Your task to perform on an android device: open chrome privacy settings Image 0: 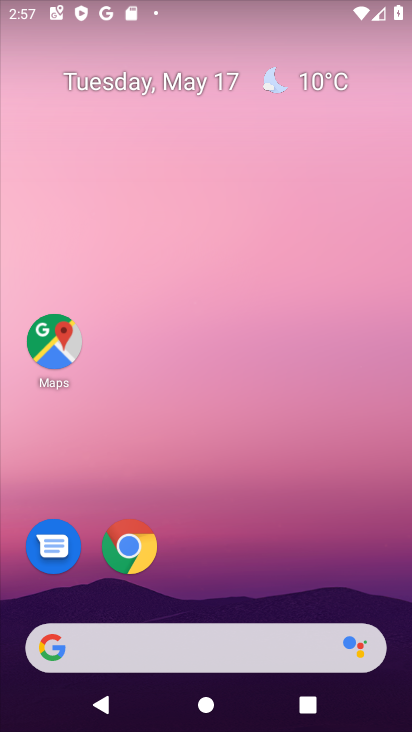
Step 0: click (142, 537)
Your task to perform on an android device: open chrome privacy settings Image 1: 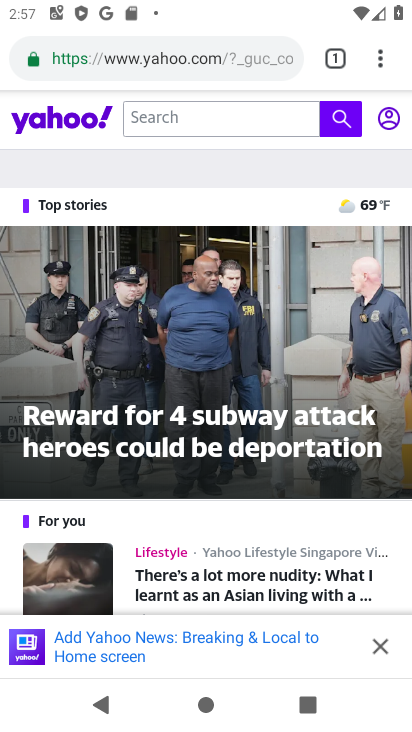
Step 1: click (386, 57)
Your task to perform on an android device: open chrome privacy settings Image 2: 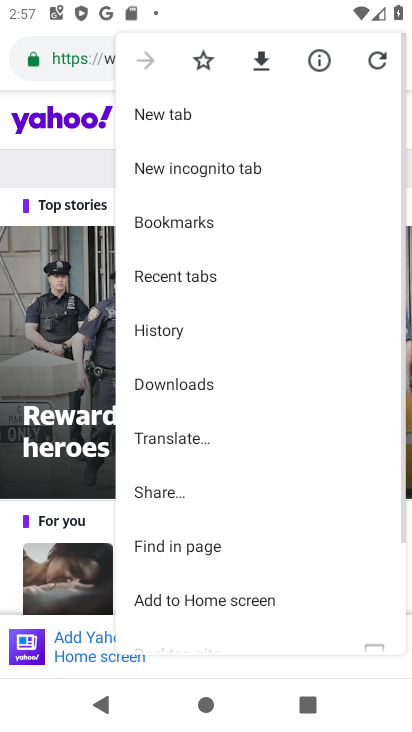
Step 2: drag from (220, 558) to (264, 164)
Your task to perform on an android device: open chrome privacy settings Image 3: 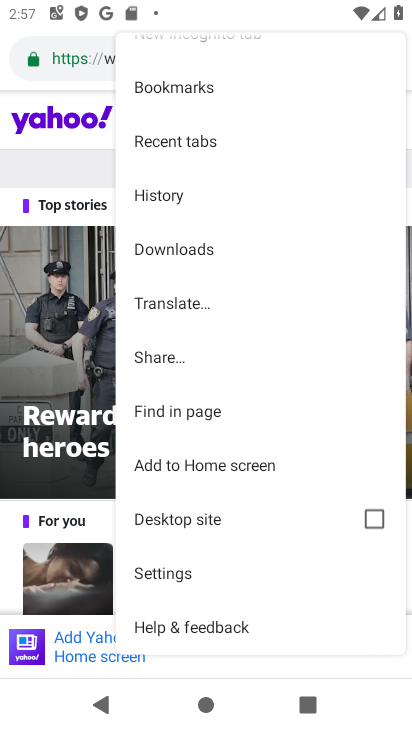
Step 3: click (173, 586)
Your task to perform on an android device: open chrome privacy settings Image 4: 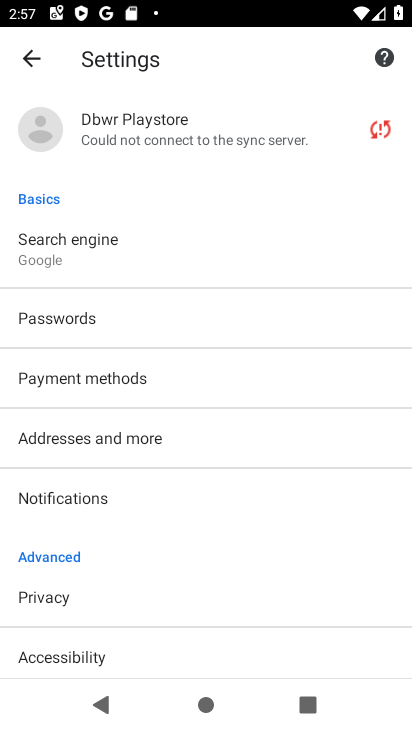
Step 4: click (63, 600)
Your task to perform on an android device: open chrome privacy settings Image 5: 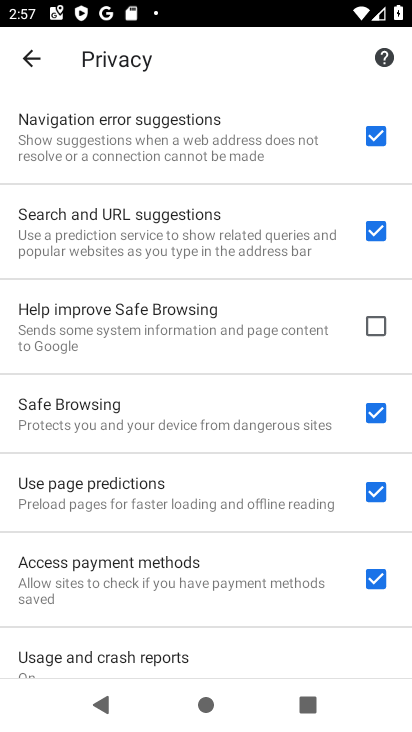
Step 5: task complete